Your task to perform on an android device: toggle airplane mode Image 0: 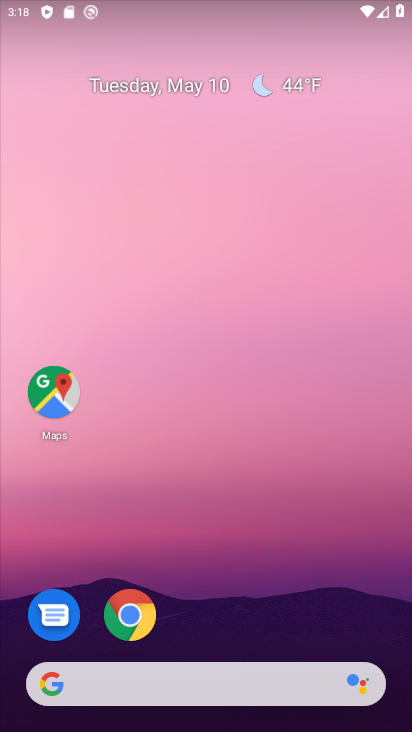
Step 0: drag from (256, 612) to (248, 51)
Your task to perform on an android device: toggle airplane mode Image 1: 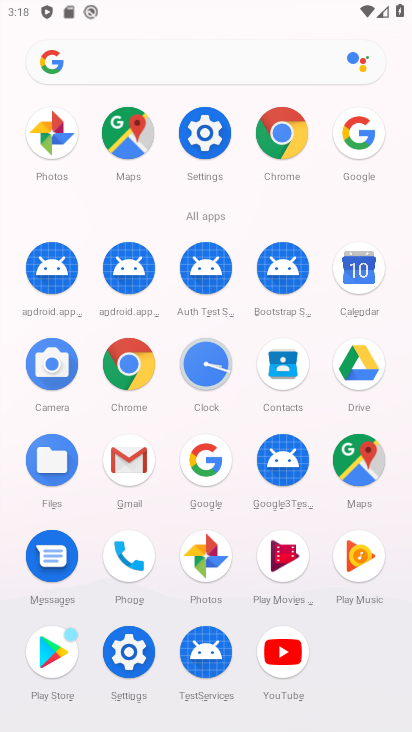
Step 1: click (190, 132)
Your task to perform on an android device: toggle airplane mode Image 2: 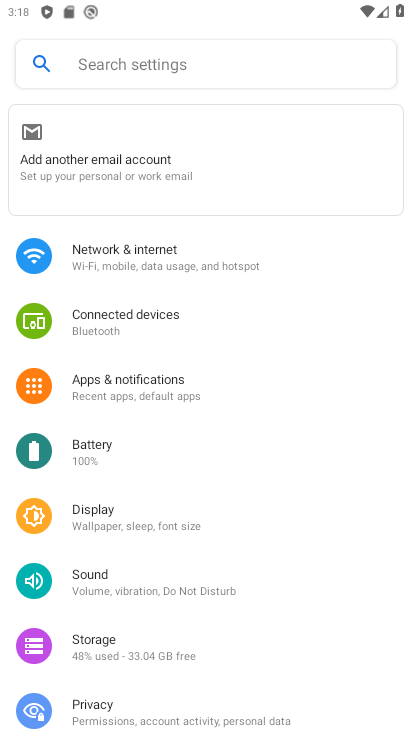
Step 2: click (212, 247)
Your task to perform on an android device: toggle airplane mode Image 3: 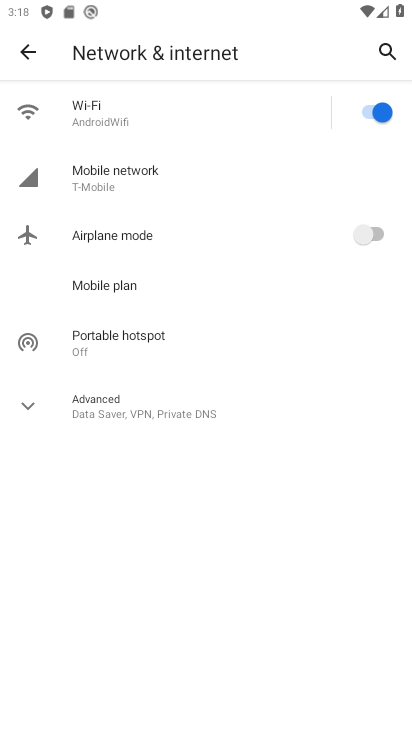
Step 3: click (398, 222)
Your task to perform on an android device: toggle airplane mode Image 4: 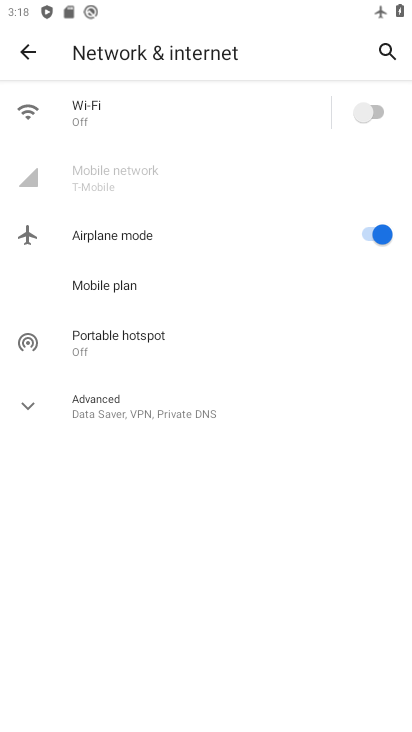
Step 4: task complete